Your task to perform on an android device: Open sound settings Image 0: 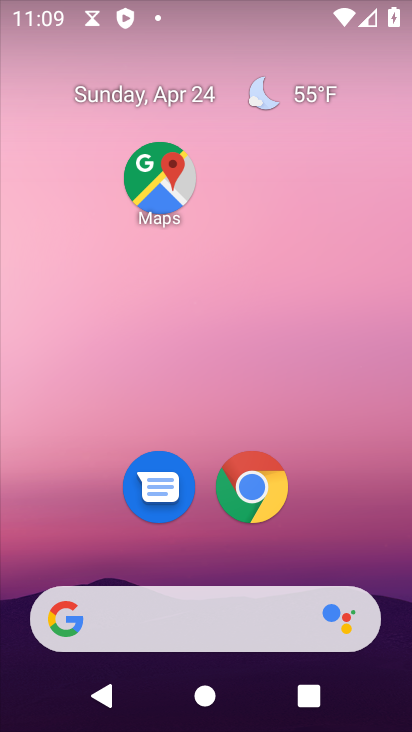
Step 0: drag from (186, 572) to (232, 246)
Your task to perform on an android device: Open sound settings Image 1: 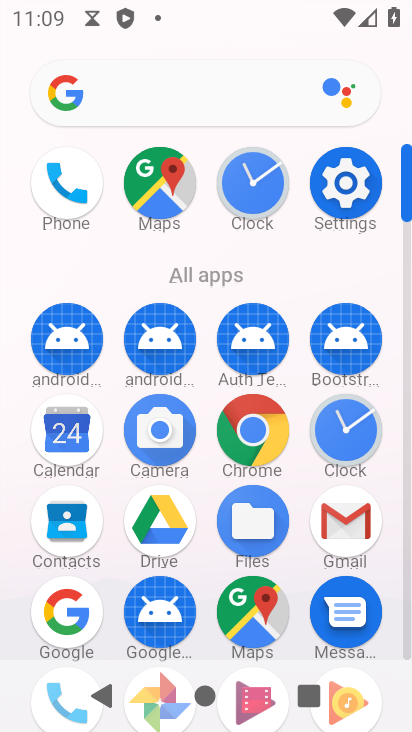
Step 1: click (352, 199)
Your task to perform on an android device: Open sound settings Image 2: 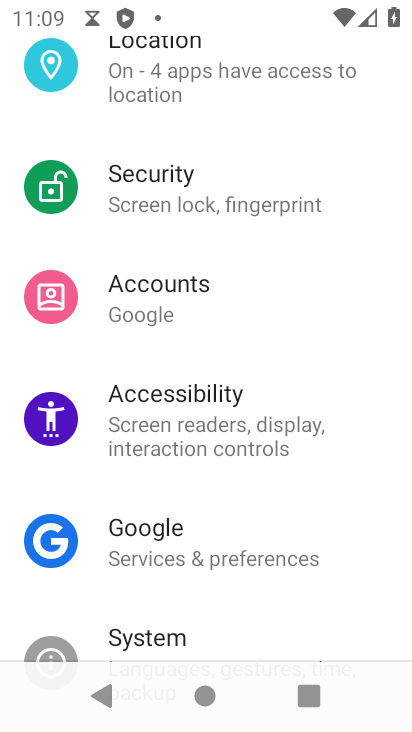
Step 2: drag from (197, 251) to (215, 453)
Your task to perform on an android device: Open sound settings Image 3: 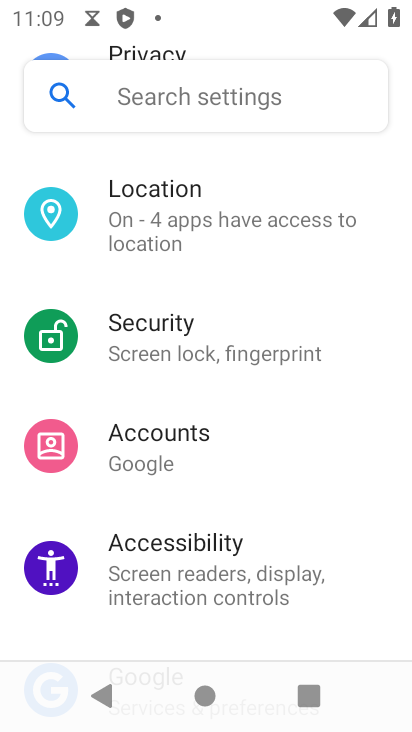
Step 3: drag from (215, 167) to (201, 468)
Your task to perform on an android device: Open sound settings Image 4: 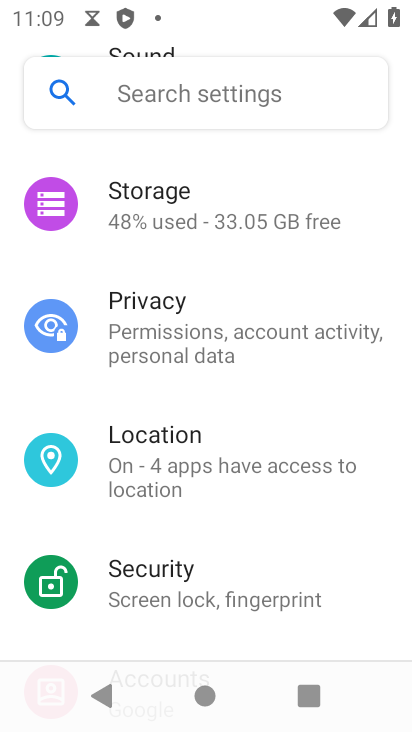
Step 4: drag from (226, 264) to (208, 480)
Your task to perform on an android device: Open sound settings Image 5: 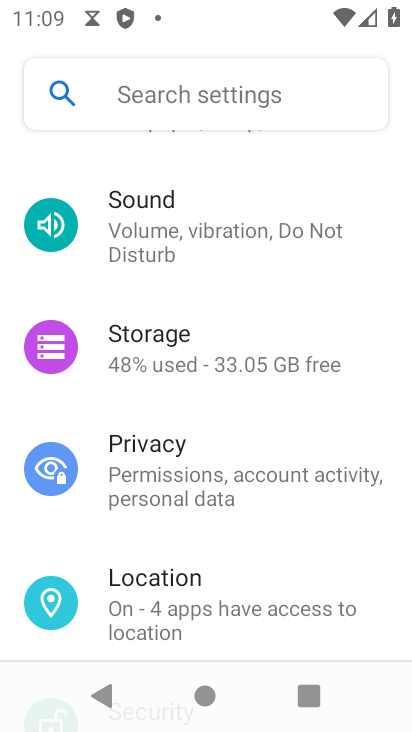
Step 5: click (202, 245)
Your task to perform on an android device: Open sound settings Image 6: 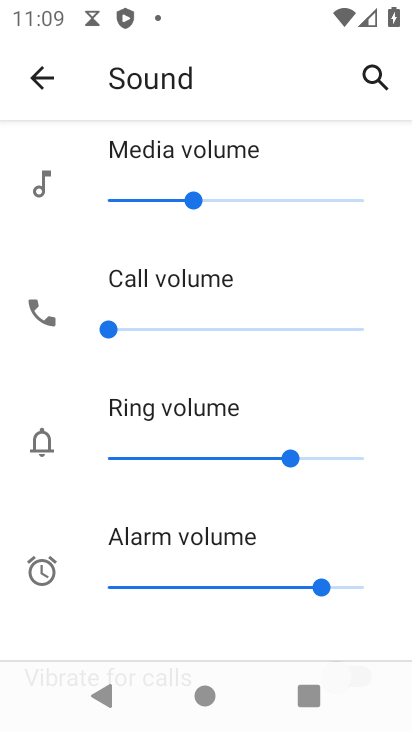
Step 6: task complete